Your task to perform on an android device: turn off priority inbox in the gmail app Image 0: 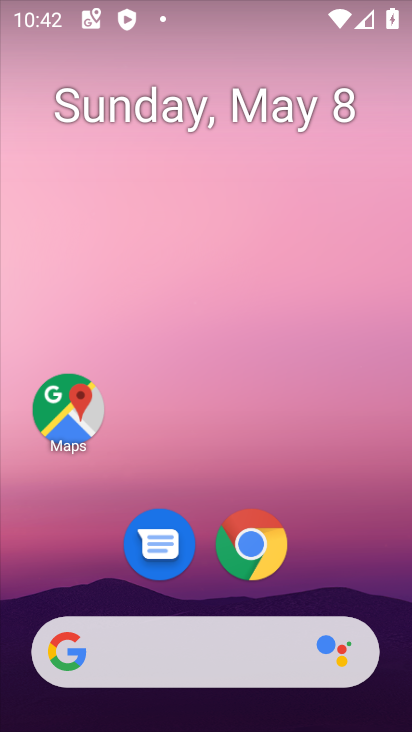
Step 0: drag from (315, 575) to (238, 75)
Your task to perform on an android device: turn off priority inbox in the gmail app Image 1: 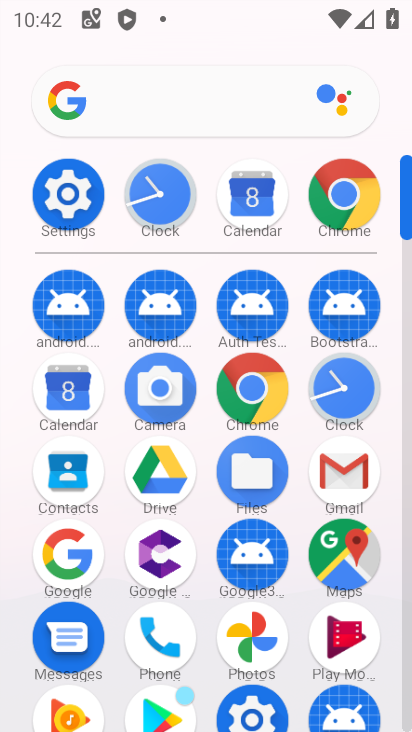
Step 1: click (341, 455)
Your task to perform on an android device: turn off priority inbox in the gmail app Image 2: 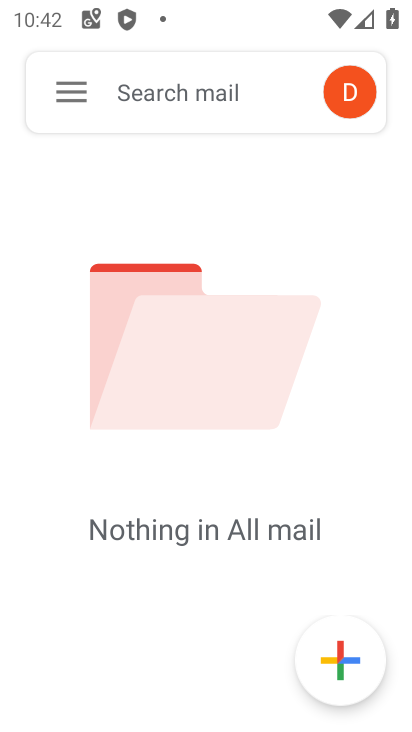
Step 2: click (57, 100)
Your task to perform on an android device: turn off priority inbox in the gmail app Image 3: 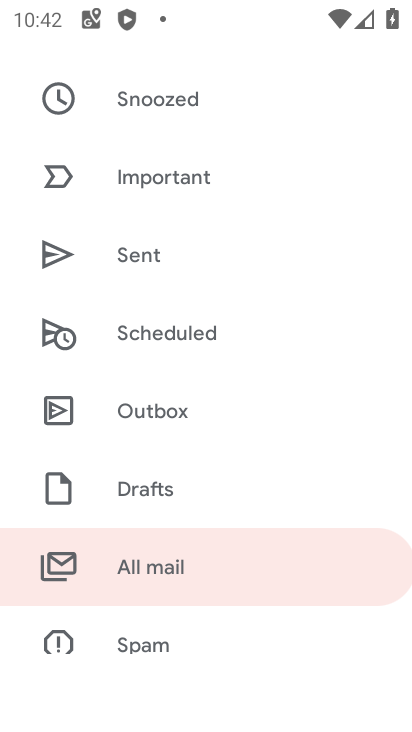
Step 3: drag from (113, 145) to (102, 544)
Your task to perform on an android device: turn off priority inbox in the gmail app Image 4: 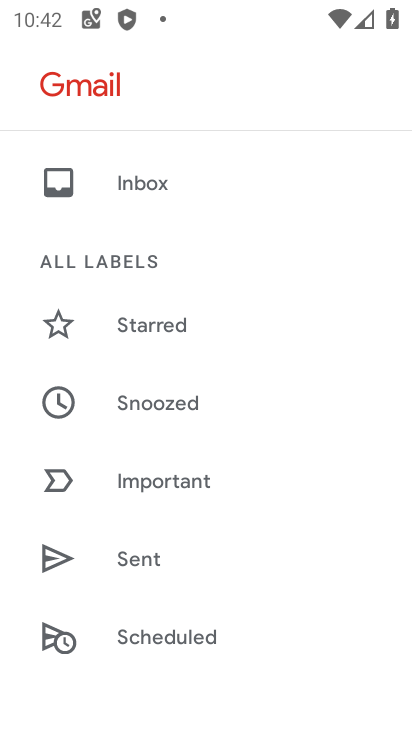
Step 4: drag from (187, 488) to (197, 251)
Your task to perform on an android device: turn off priority inbox in the gmail app Image 5: 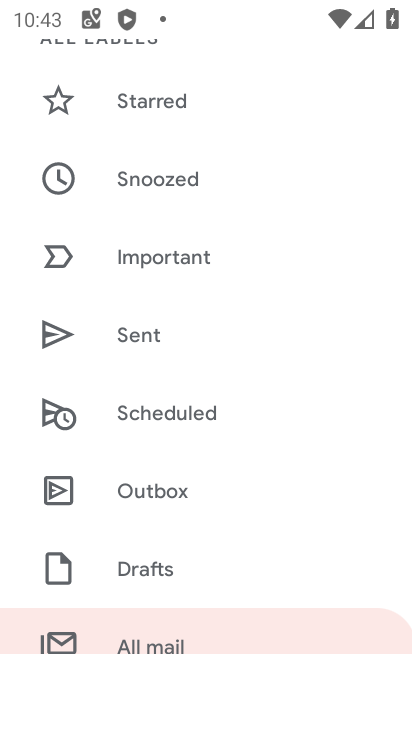
Step 5: drag from (220, 559) to (220, 190)
Your task to perform on an android device: turn off priority inbox in the gmail app Image 6: 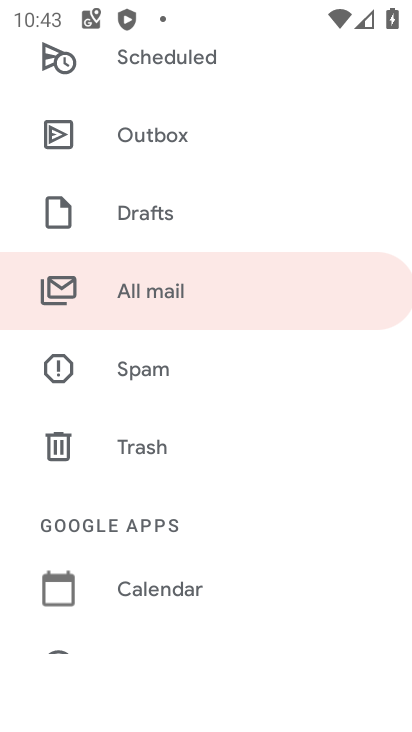
Step 6: drag from (234, 519) to (200, 163)
Your task to perform on an android device: turn off priority inbox in the gmail app Image 7: 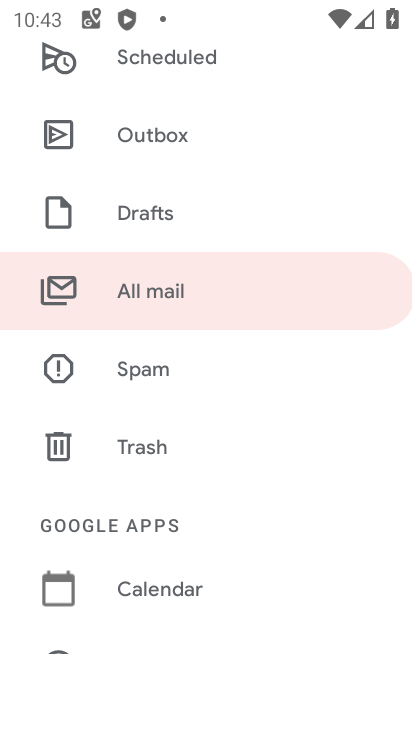
Step 7: drag from (196, 526) to (157, 289)
Your task to perform on an android device: turn off priority inbox in the gmail app Image 8: 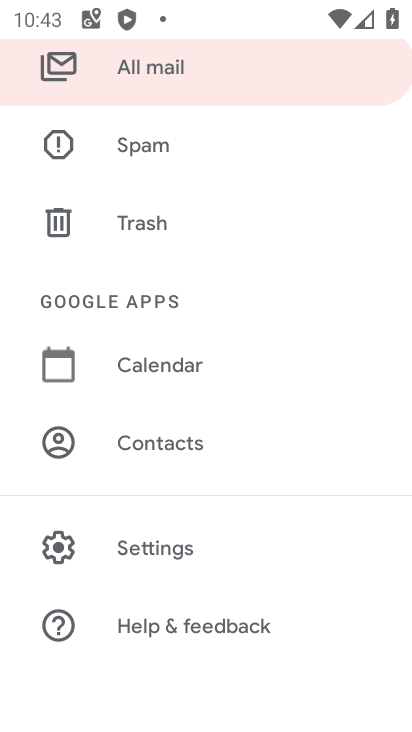
Step 8: click (196, 540)
Your task to perform on an android device: turn off priority inbox in the gmail app Image 9: 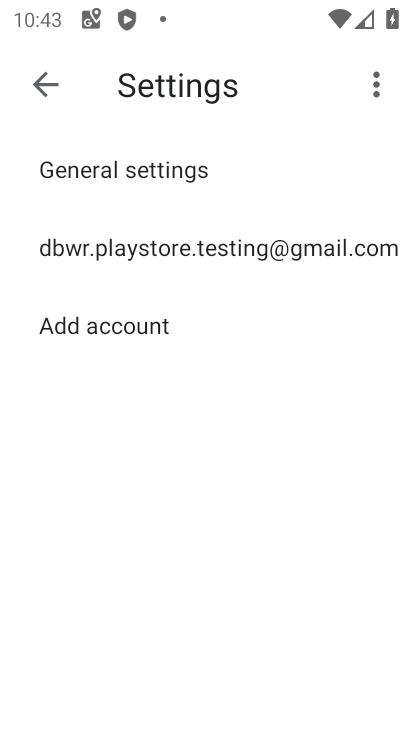
Step 9: click (151, 281)
Your task to perform on an android device: turn off priority inbox in the gmail app Image 10: 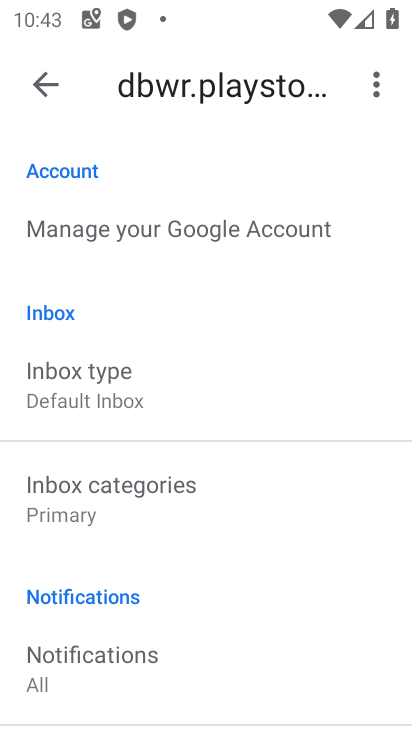
Step 10: click (152, 372)
Your task to perform on an android device: turn off priority inbox in the gmail app Image 11: 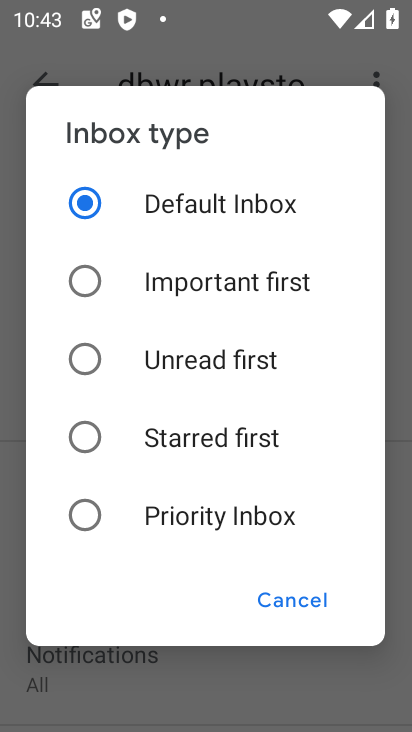
Step 11: click (176, 304)
Your task to perform on an android device: turn off priority inbox in the gmail app Image 12: 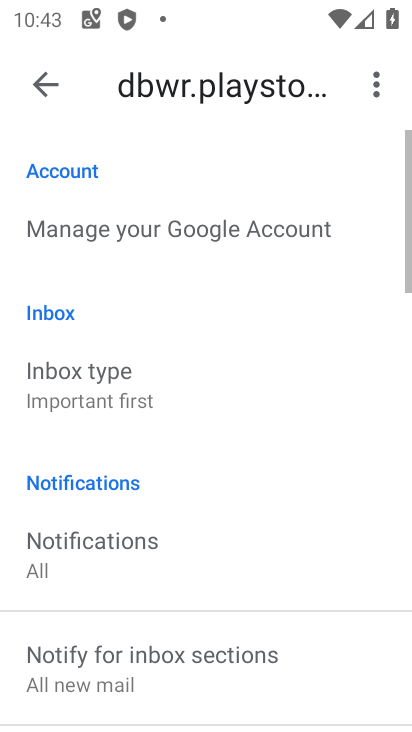
Step 12: task complete